Your task to perform on an android device: allow cookies in the chrome app Image 0: 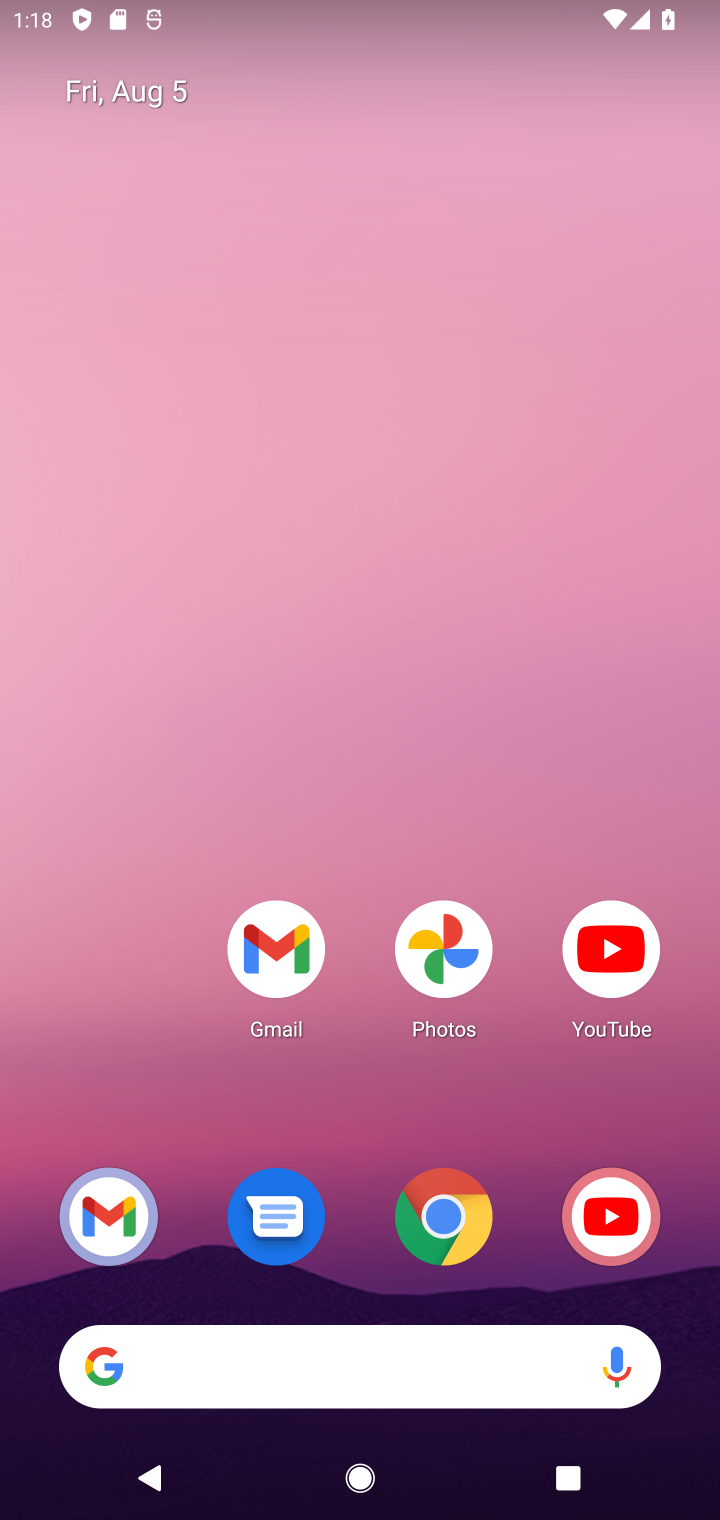
Step 0: click (451, 1215)
Your task to perform on an android device: allow cookies in the chrome app Image 1: 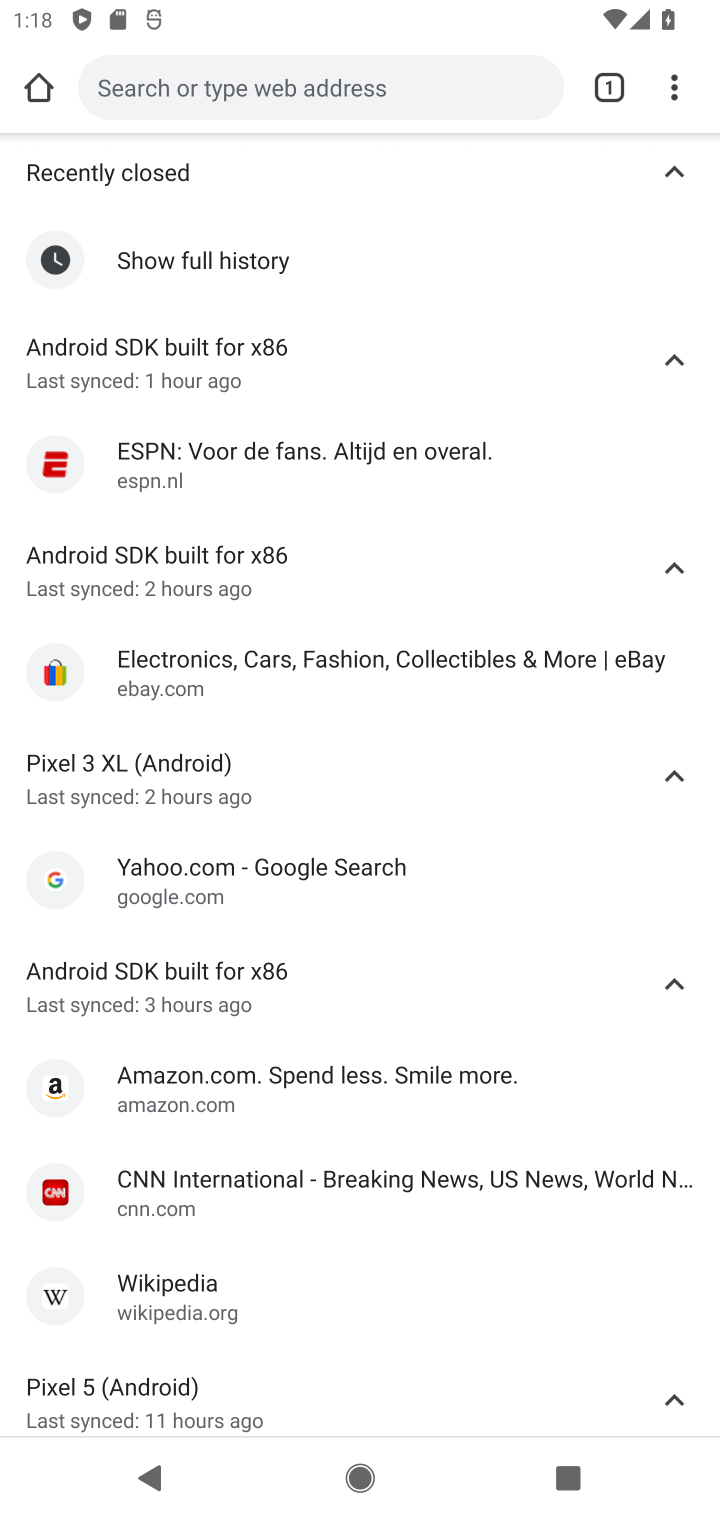
Step 1: click (679, 80)
Your task to perform on an android device: allow cookies in the chrome app Image 2: 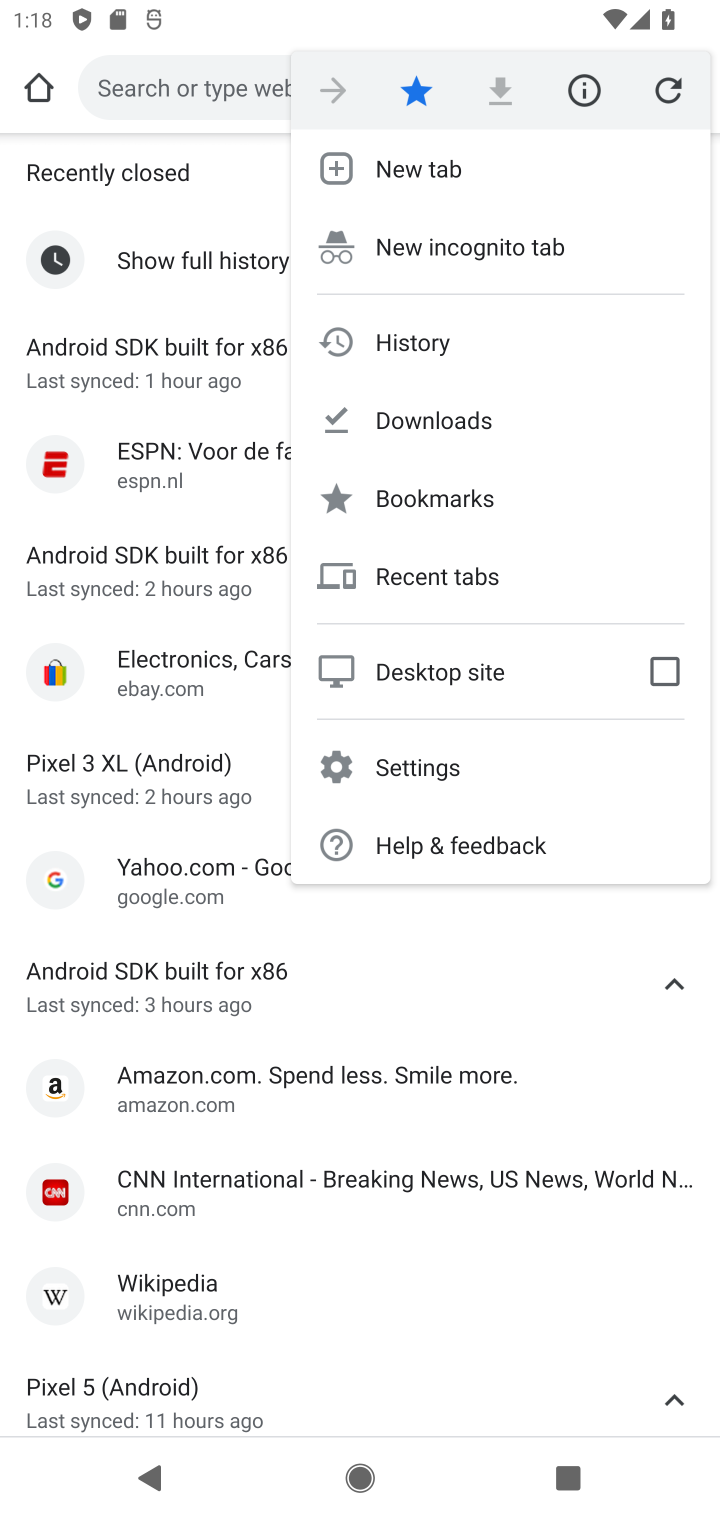
Step 2: click (445, 778)
Your task to perform on an android device: allow cookies in the chrome app Image 3: 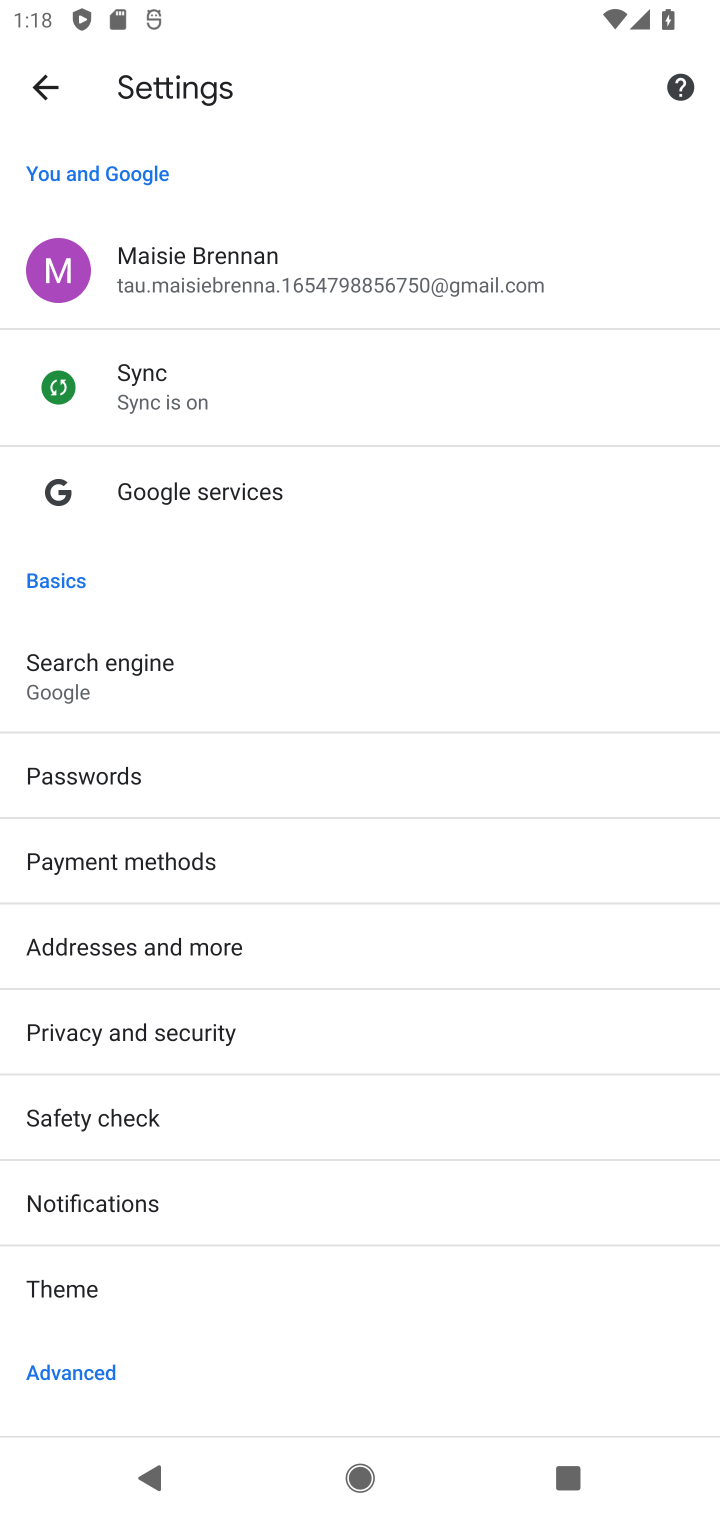
Step 3: drag from (324, 1183) to (366, 291)
Your task to perform on an android device: allow cookies in the chrome app Image 4: 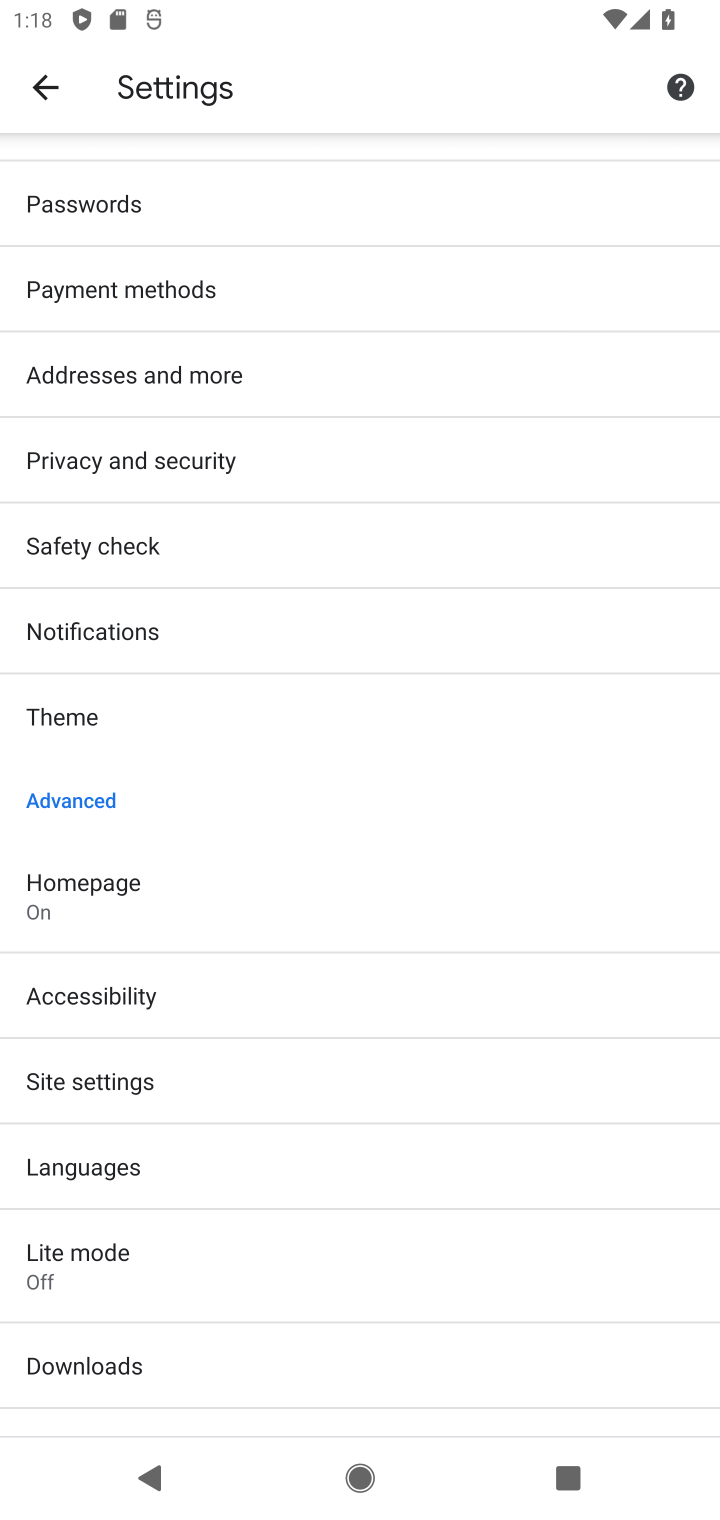
Step 4: click (137, 1085)
Your task to perform on an android device: allow cookies in the chrome app Image 5: 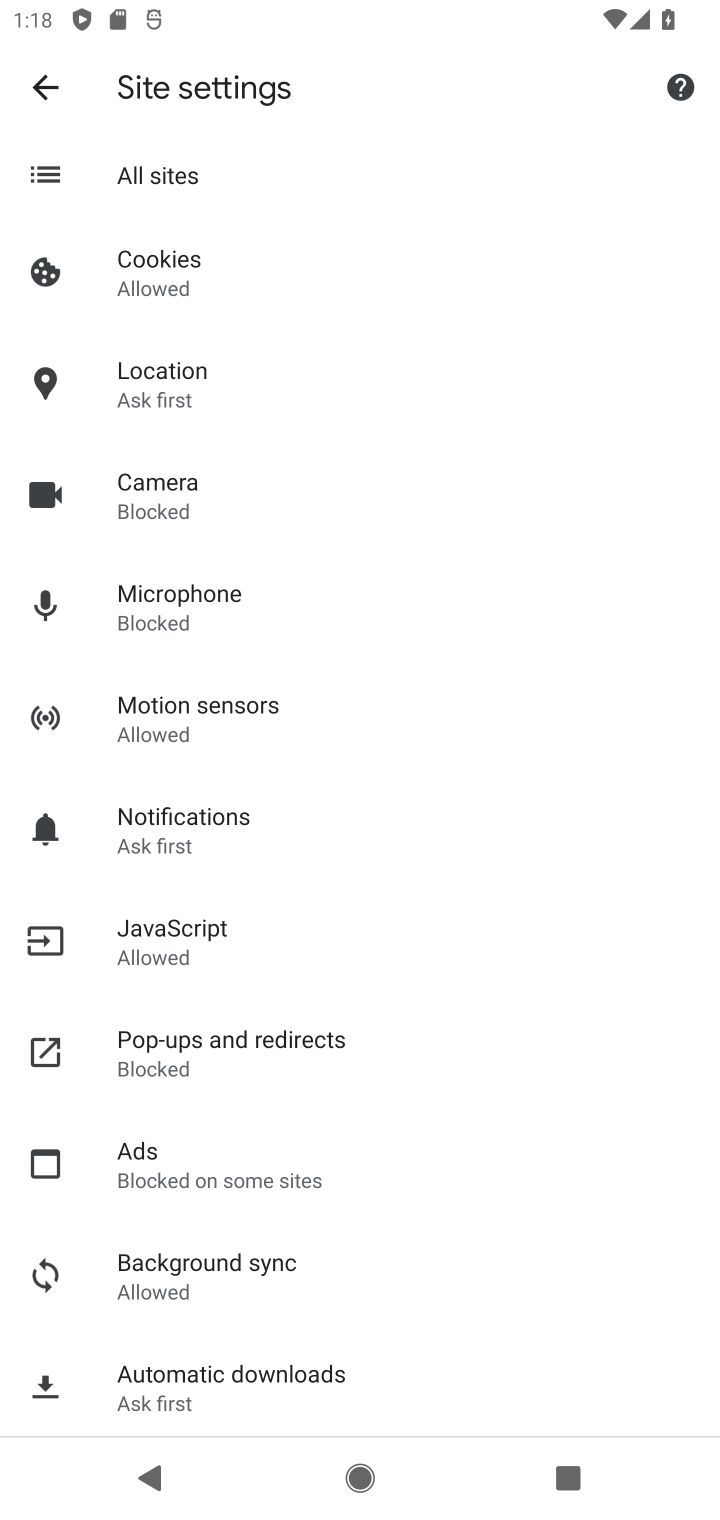
Step 5: click (163, 279)
Your task to perform on an android device: allow cookies in the chrome app Image 6: 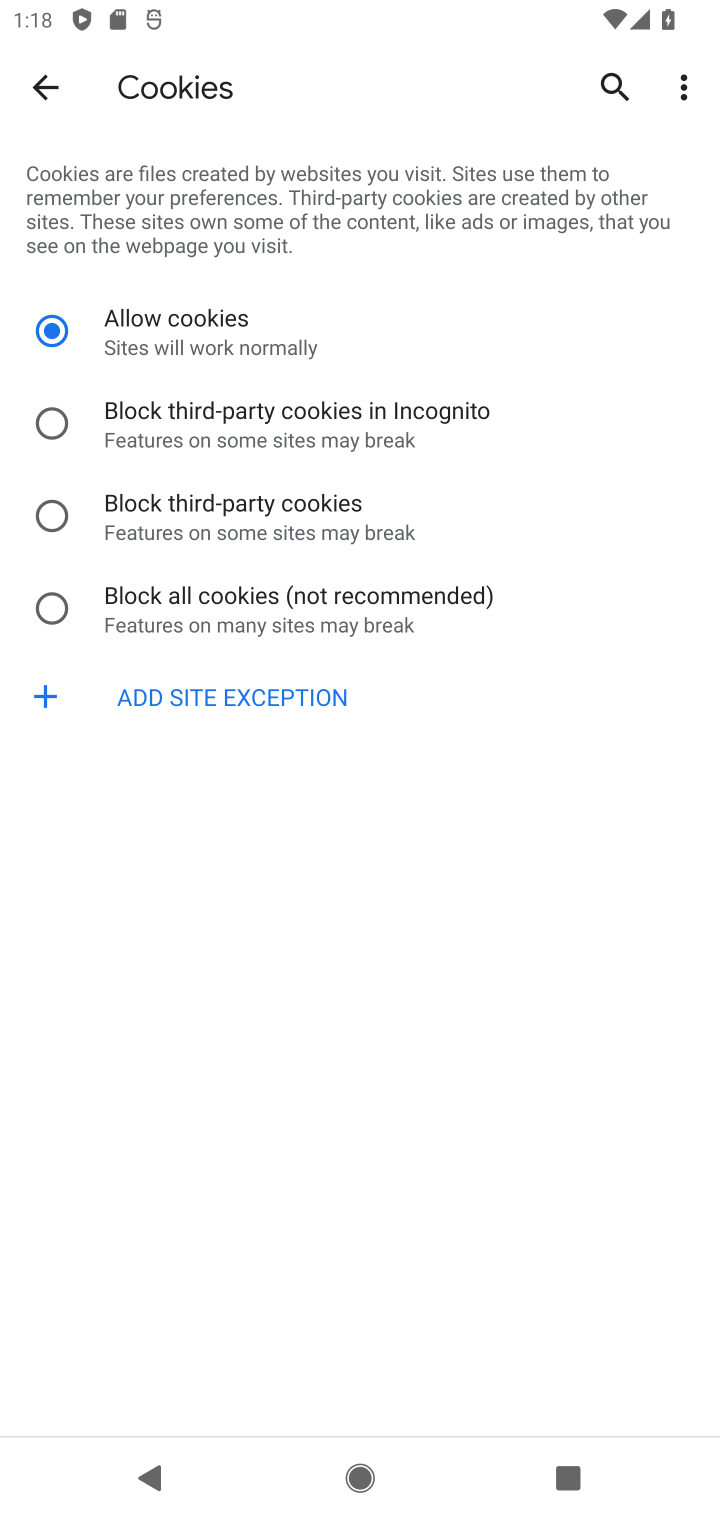
Step 6: task complete